Your task to perform on an android device: open the mobile data screen to see how much data has been used Image 0: 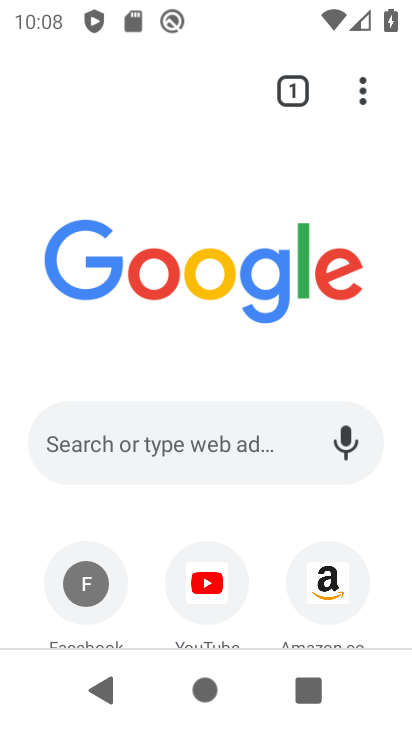
Step 0: drag from (220, 17) to (245, 540)
Your task to perform on an android device: open the mobile data screen to see how much data has been used Image 1: 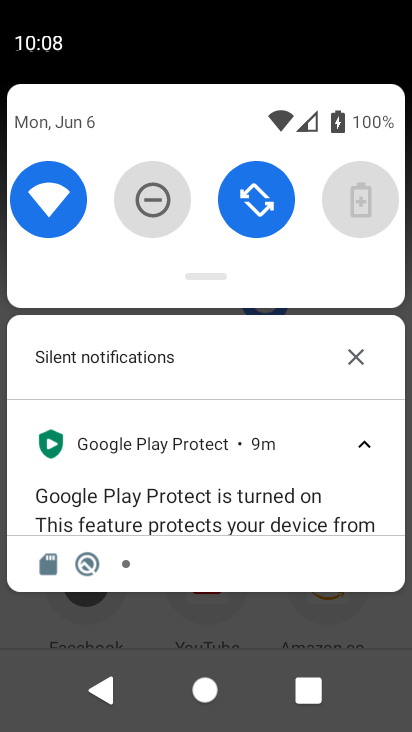
Step 1: drag from (209, 126) to (178, 621)
Your task to perform on an android device: open the mobile data screen to see how much data has been used Image 2: 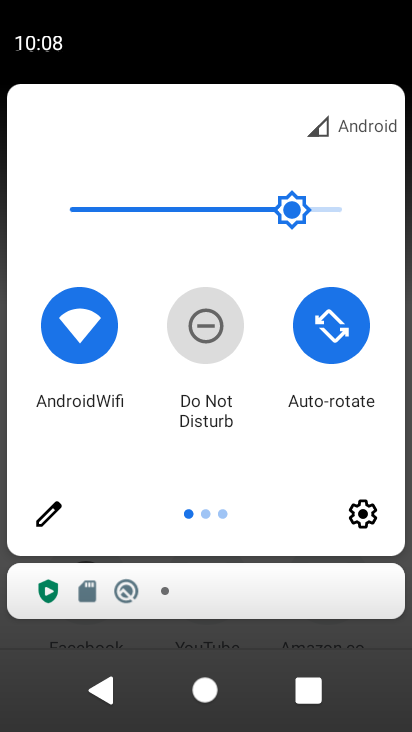
Step 2: drag from (369, 444) to (82, 430)
Your task to perform on an android device: open the mobile data screen to see how much data has been used Image 3: 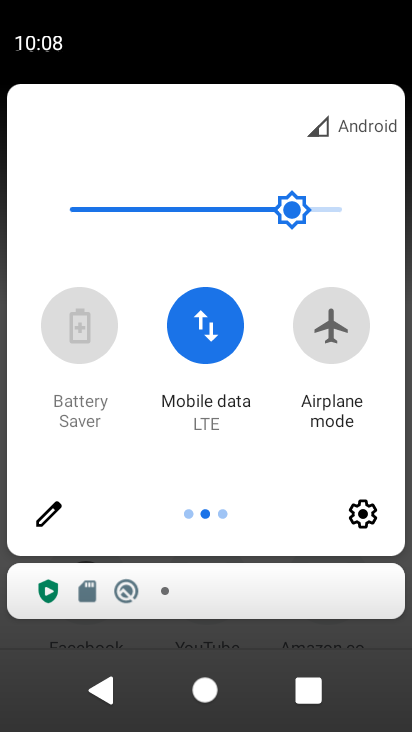
Step 3: click (209, 303)
Your task to perform on an android device: open the mobile data screen to see how much data has been used Image 4: 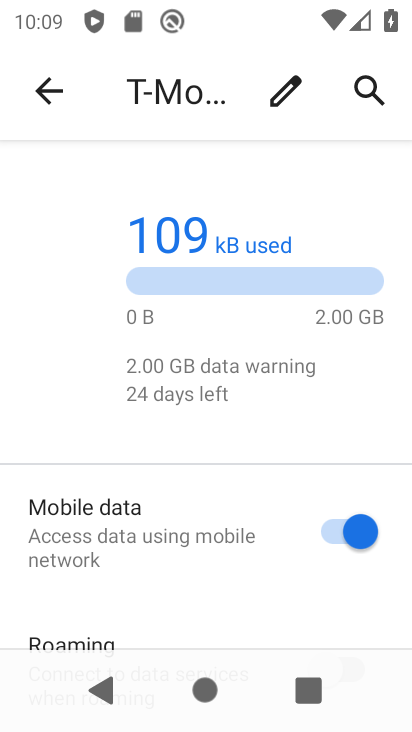
Step 4: click (209, 303)
Your task to perform on an android device: open the mobile data screen to see how much data has been used Image 5: 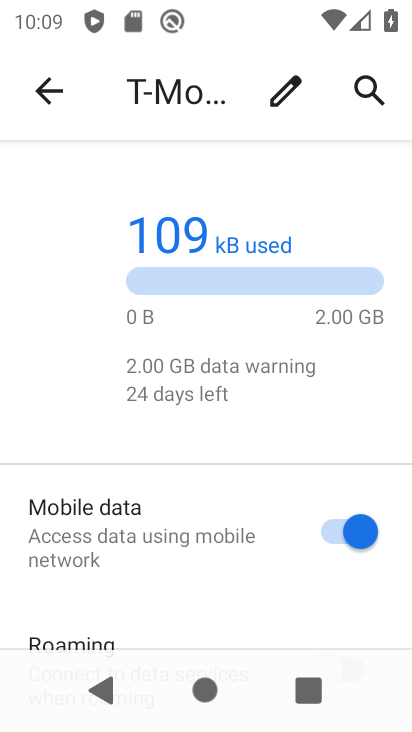
Step 5: task complete